Your task to perform on an android device: turn pop-ups off in chrome Image 0: 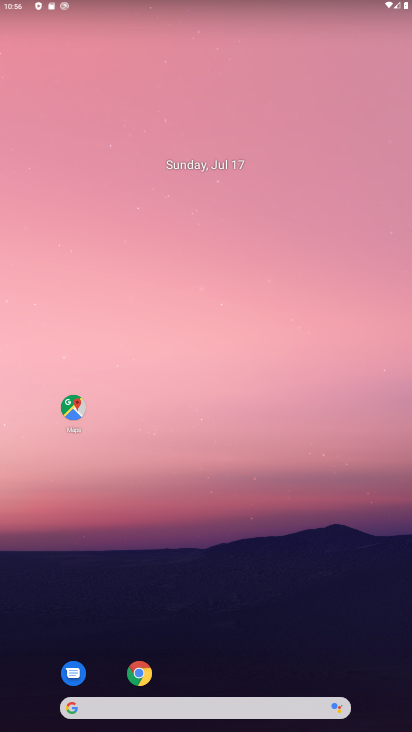
Step 0: click (146, 676)
Your task to perform on an android device: turn pop-ups off in chrome Image 1: 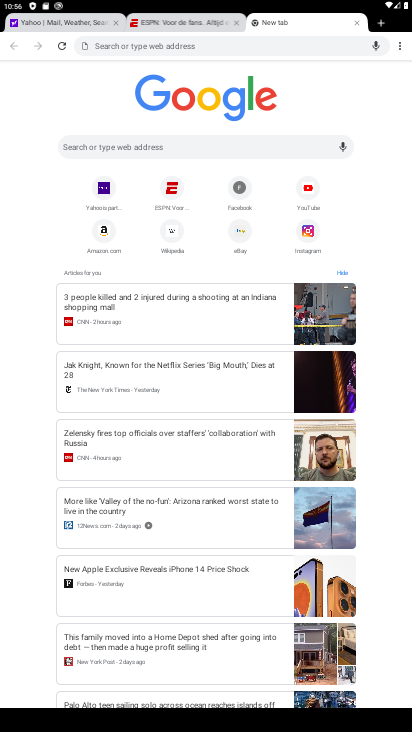
Step 1: click (401, 45)
Your task to perform on an android device: turn pop-ups off in chrome Image 2: 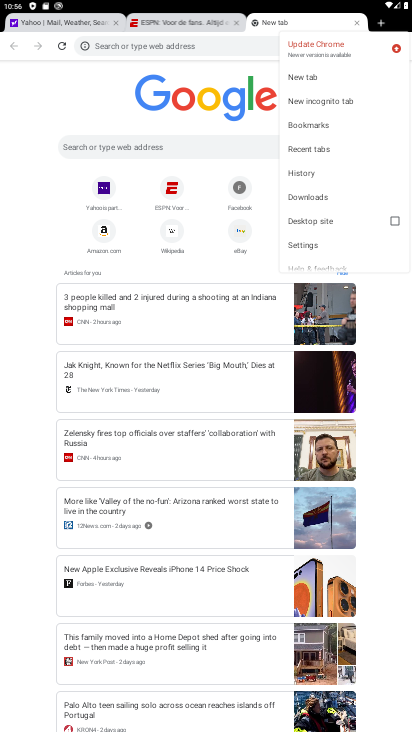
Step 2: click (322, 247)
Your task to perform on an android device: turn pop-ups off in chrome Image 3: 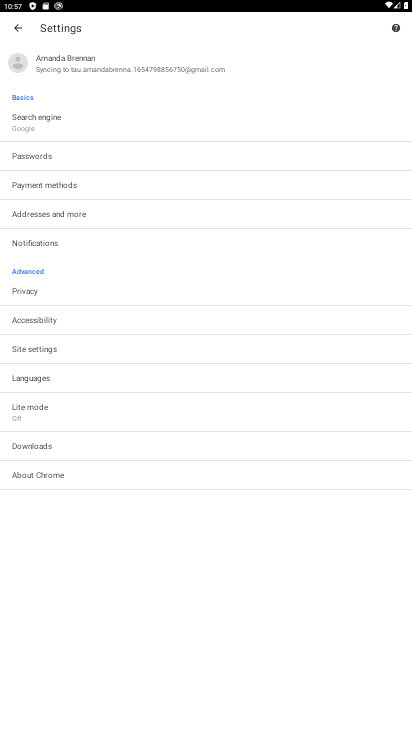
Step 3: click (35, 354)
Your task to perform on an android device: turn pop-ups off in chrome Image 4: 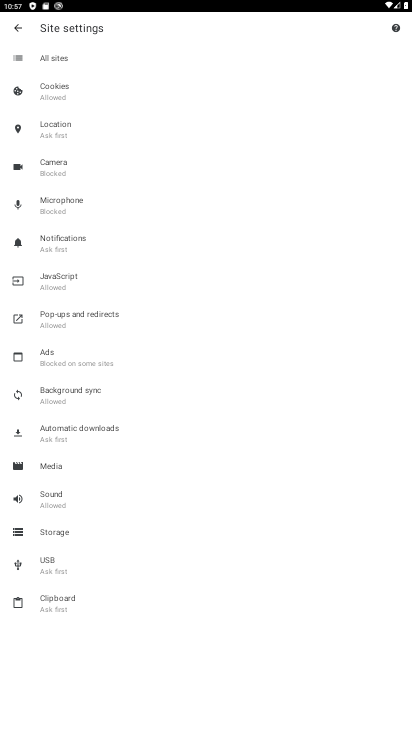
Step 4: click (72, 316)
Your task to perform on an android device: turn pop-ups off in chrome Image 5: 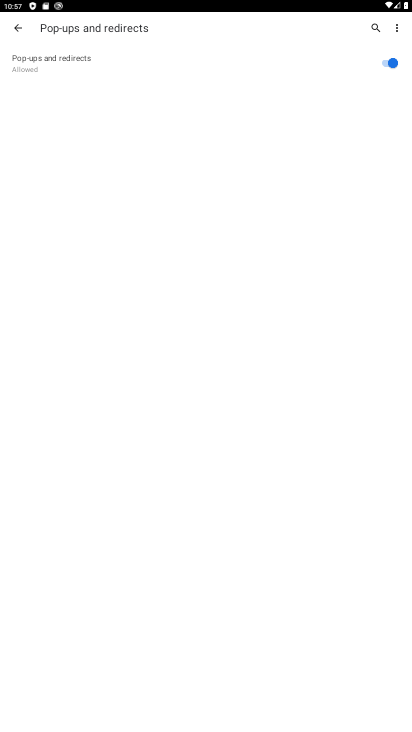
Step 5: click (387, 60)
Your task to perform on an android device: turn pop-ups off in chrome Image 6: 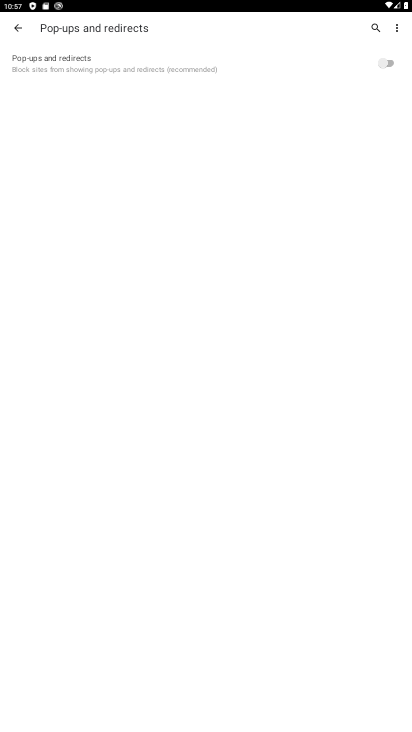
Step 6: task complete